Your task to perform on an android device: install app "Google Maps" Image 0: 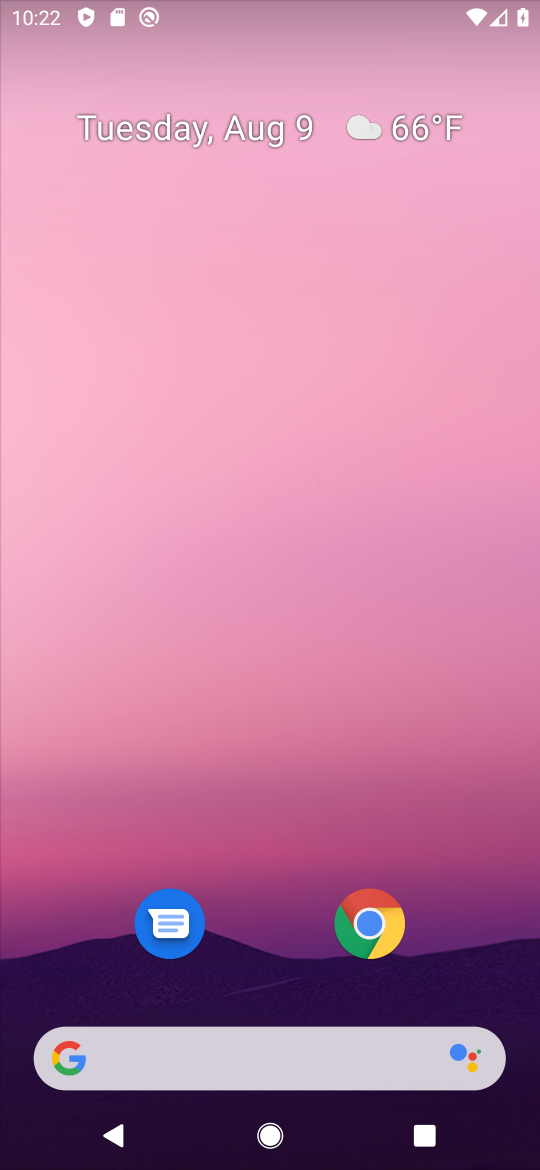
Step 0: press home button
Your task to perform on an android device: install app "Google Maps" Image 1: 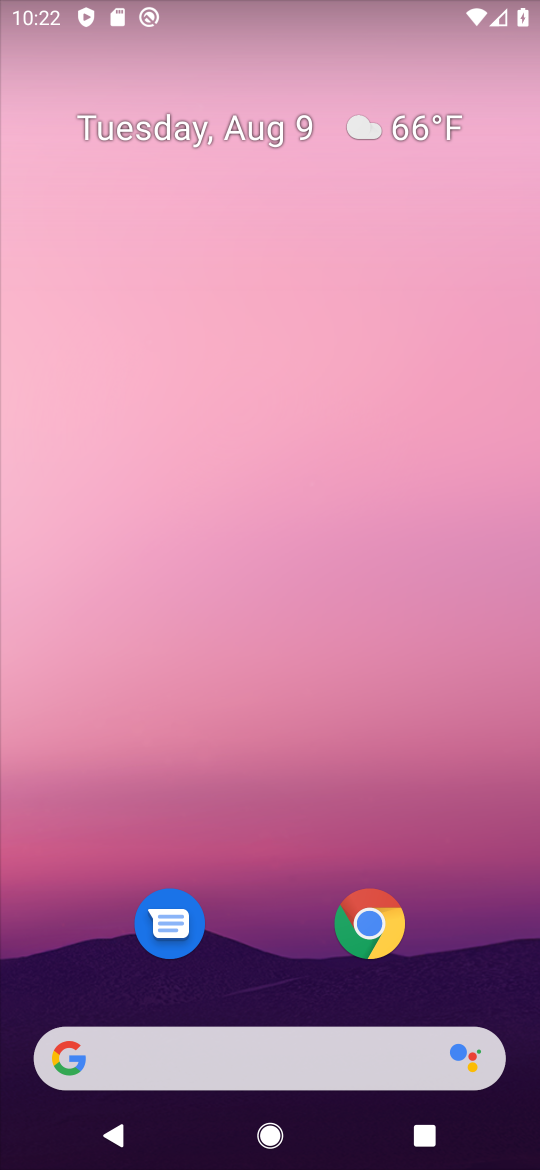
Step 1: drag from (277, 997) to (320, 123)
Your task to perform on an android device: install app "Google Maps" Image 2: 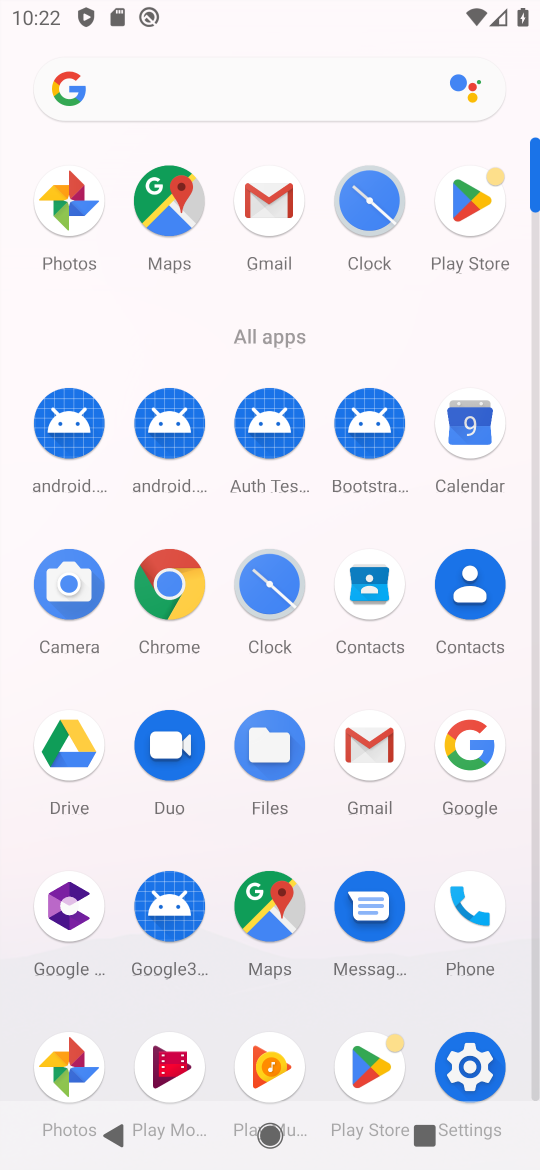
Step 2: click (464, 188)
Your task to perform on an android device: install app "Google Maps" Image 3: 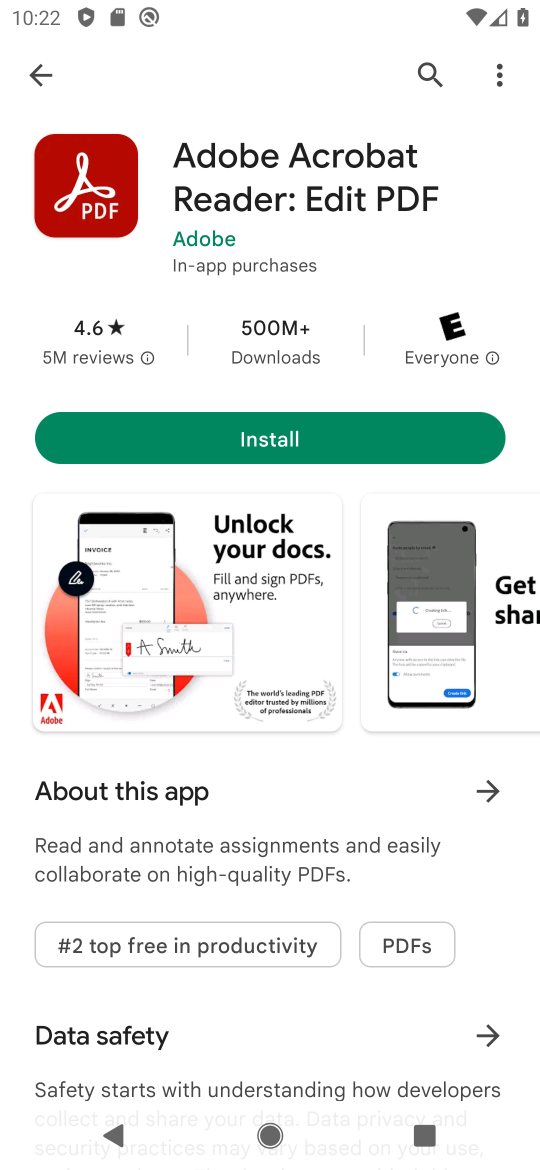
Step 3: click (434, 75)
Your task to perform on an android device: install app "Google Maps" Image 4: 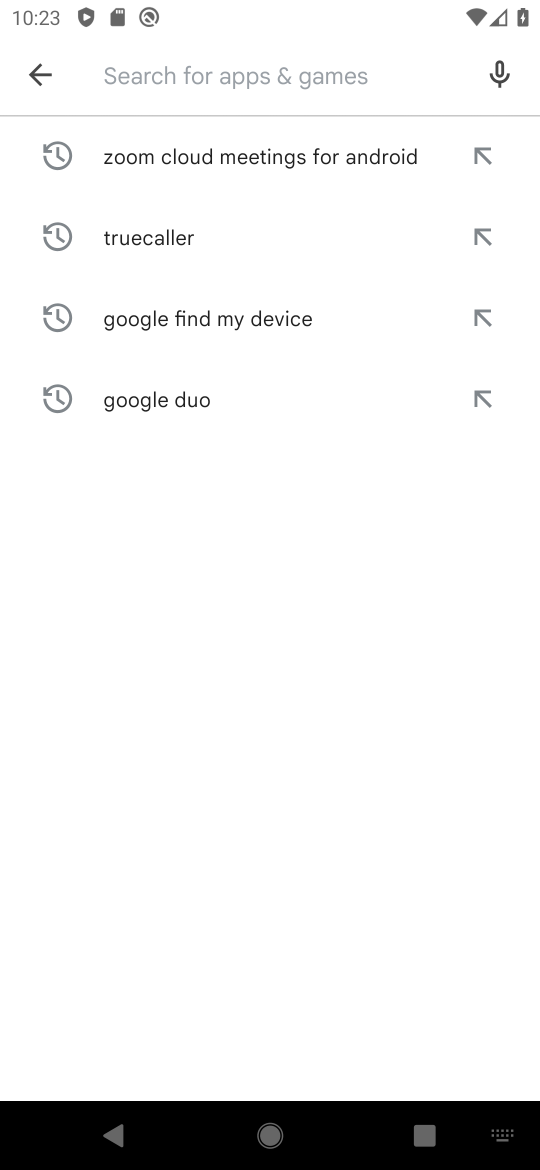
Step 4: type "Google Maps"
Your task to perform on an android device: install app "Google Maps" Image 5: 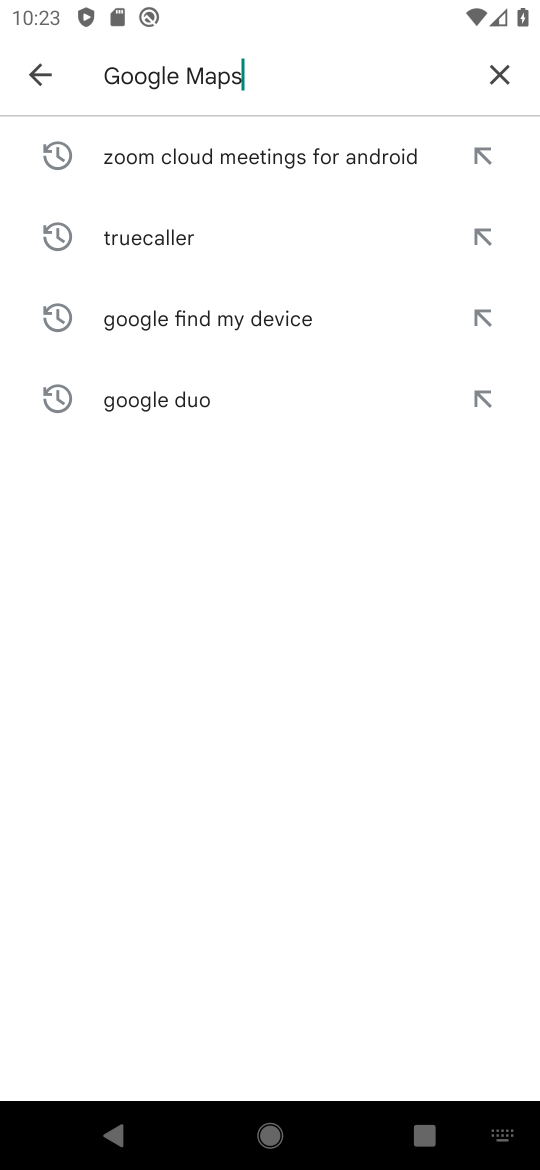
Step 5: type ""
Your task to perform on an android device: install app "Google Maps" Image 6: 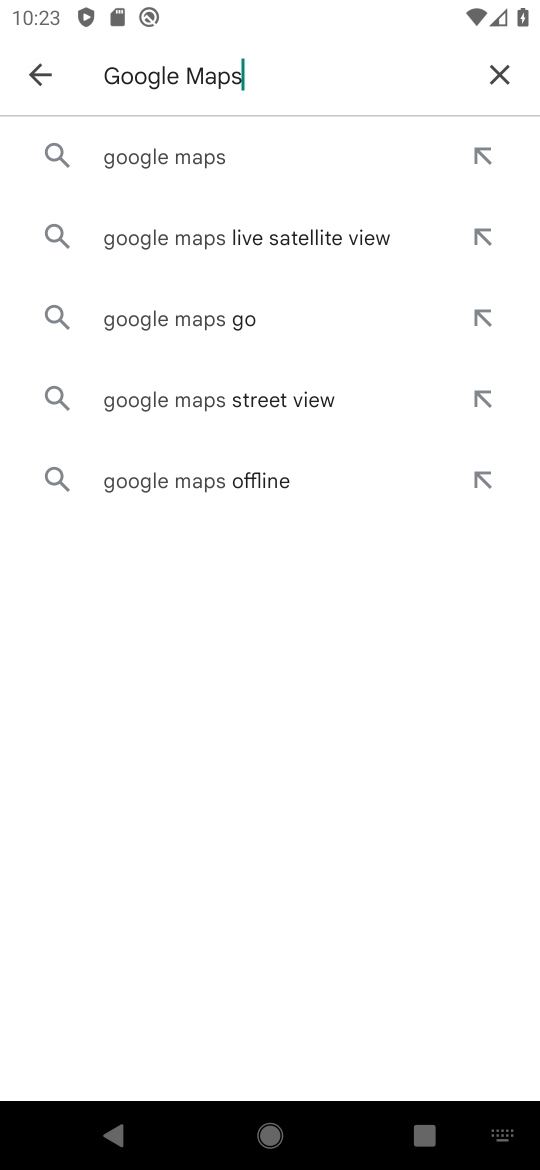
Step 6: click (238, 156)
Your task to perform on an android device: install app "Google Maps" Image 7: 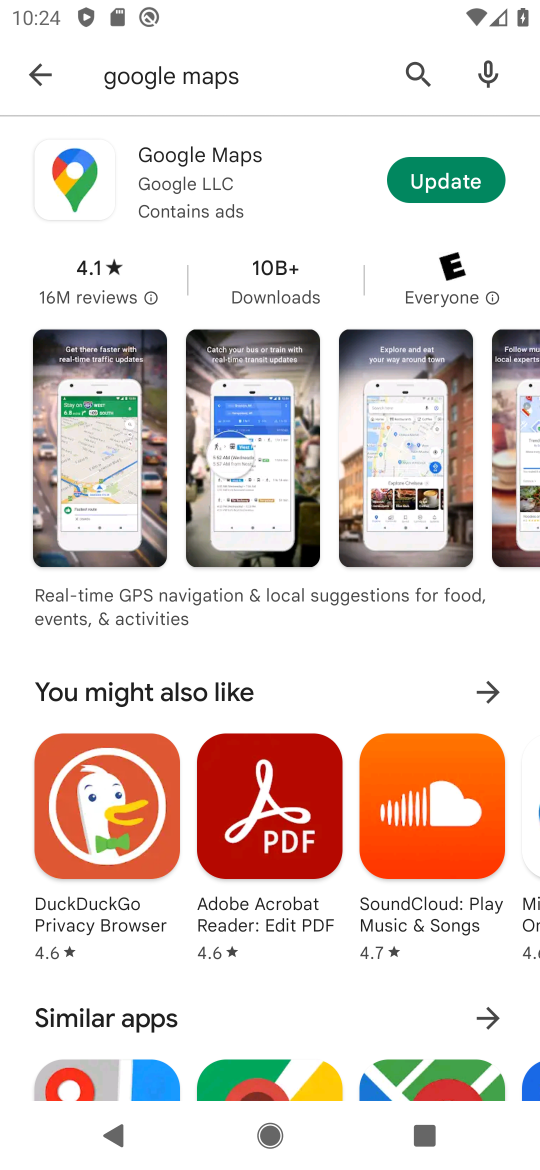
Step 7: click (447, 174)
Your task to perform on an android device: install app "Google Maps" Image 8: 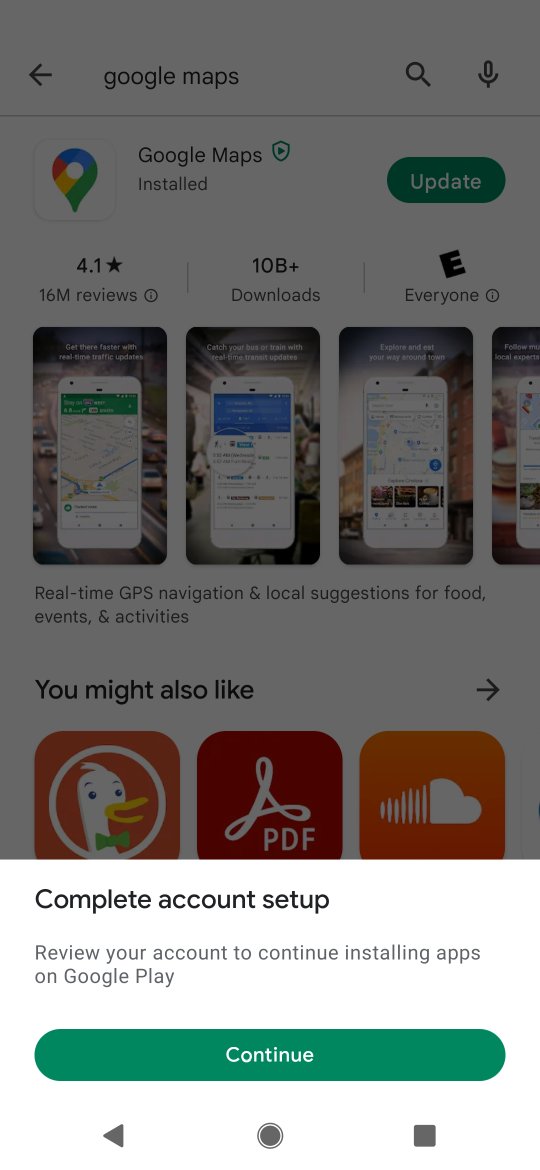
Step 8: click (267, 1053)
Your task to perform on an android device: install app "Google Maps" Image 9: 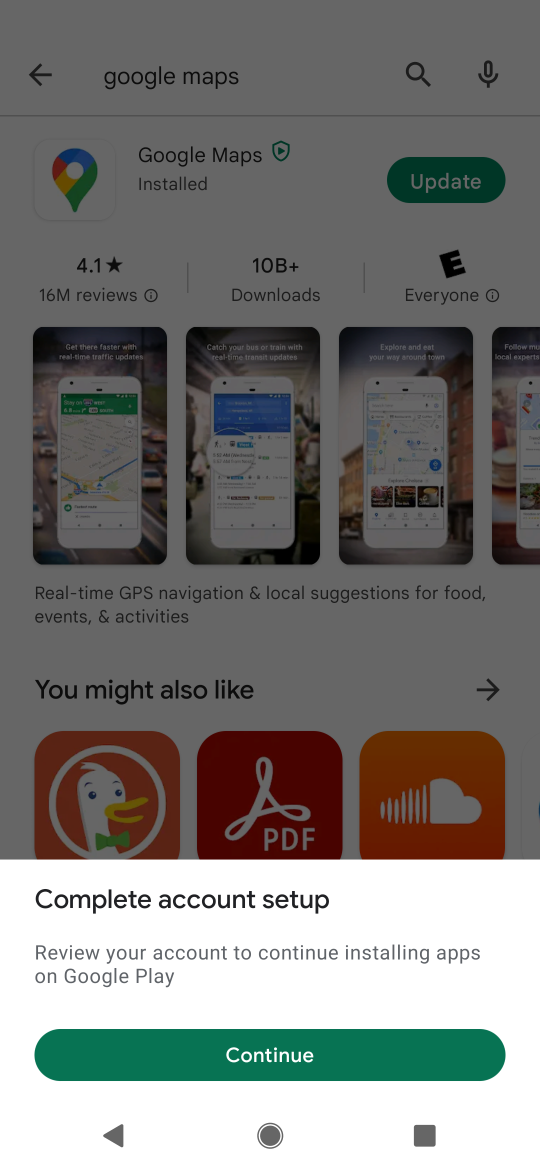
Step 9: click (269, 1050)
Your task to perform on an android device: install app "Google Maps" Image 10: 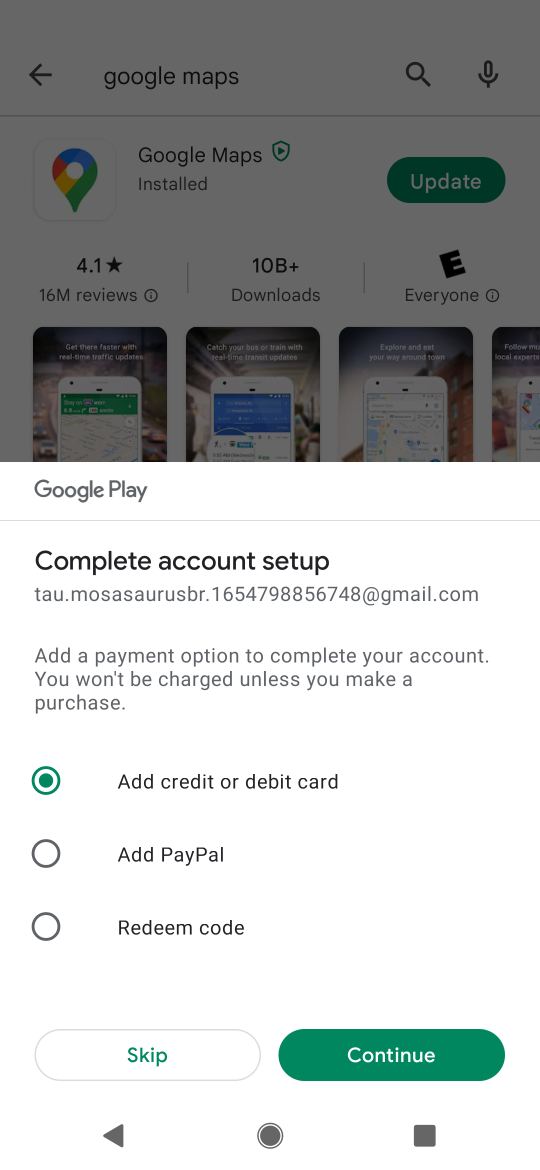
Step 10: click (144, 1046)
Your task to perform on an android device: install app "Google Maps" Image 11: 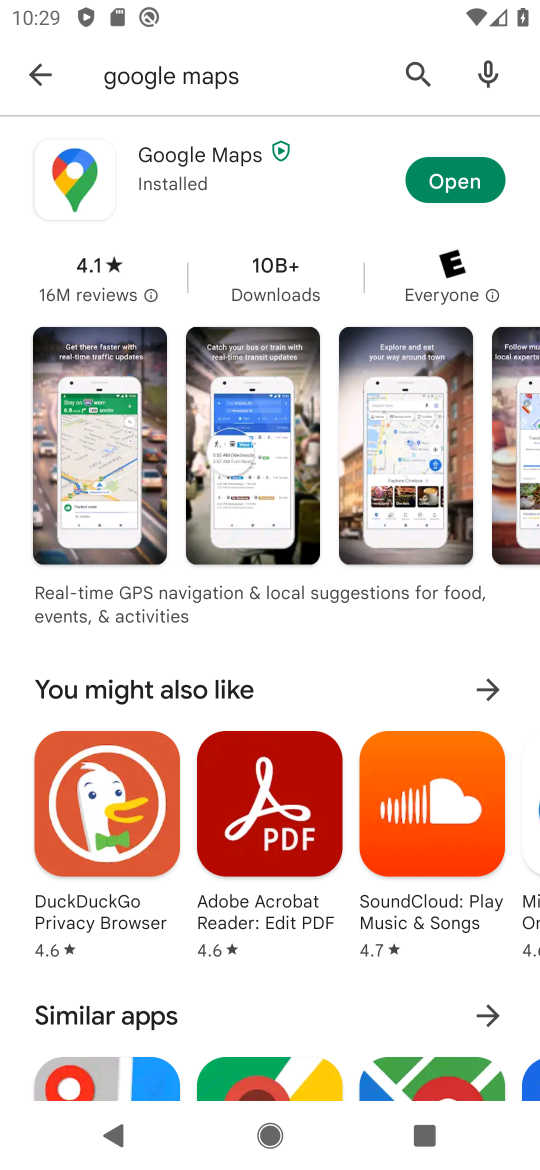
Step 11: click (453, 179)
Your task to perform on an android device: install app "Google Maps" Image 12: 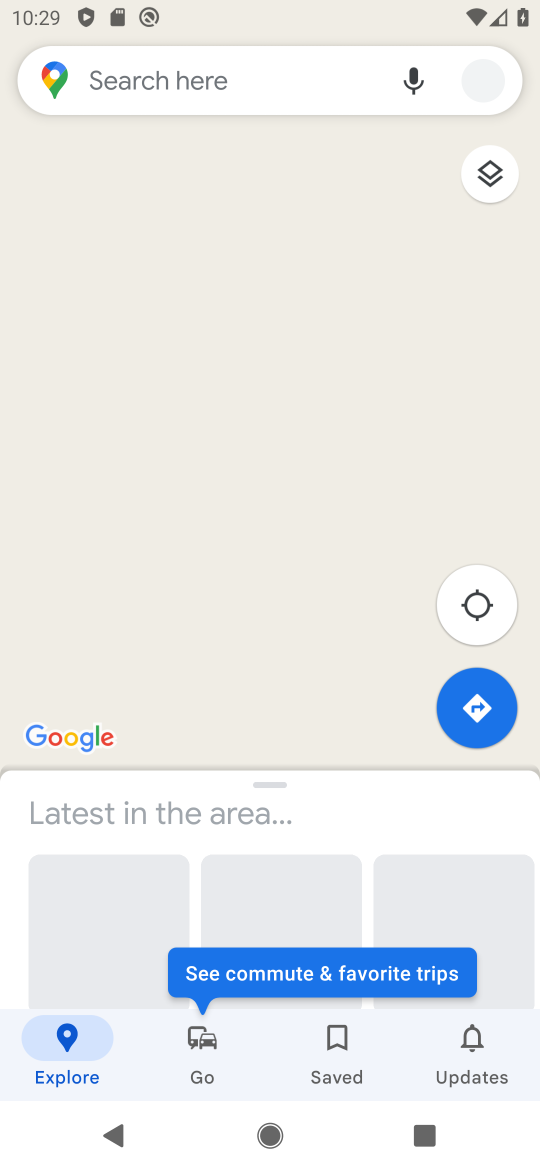
Step 12: task complete